Your task to perform on an android device: What is the news today? Image 0: 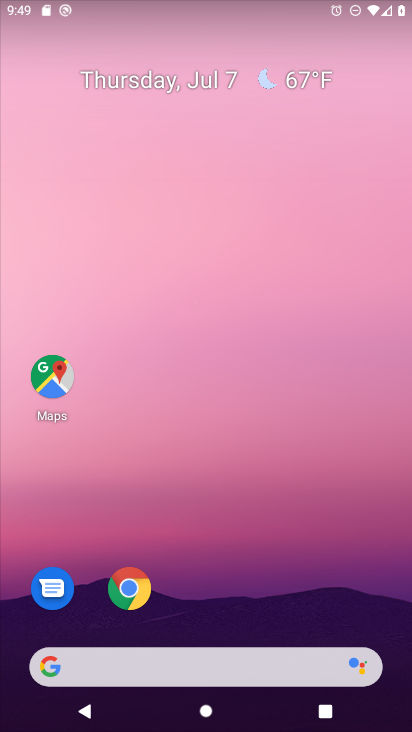
Step 0: drag from (258, 631) to (221, 196)
Your task to perform on an android device: What is the news today? Image 1: 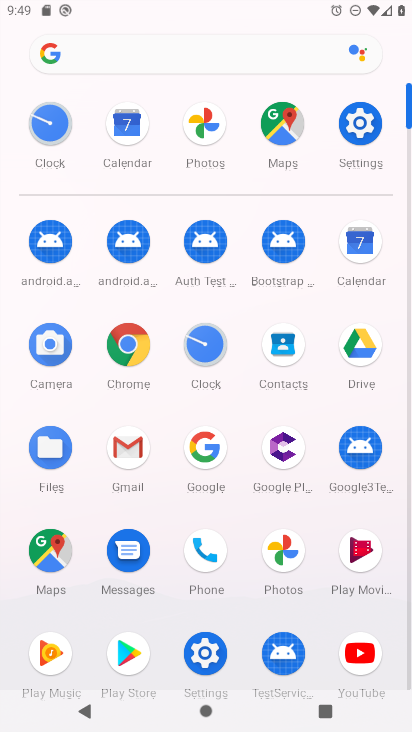
Step 1: click (203, 444)
Your task to perform on an android device: What is the news today? Image 2: 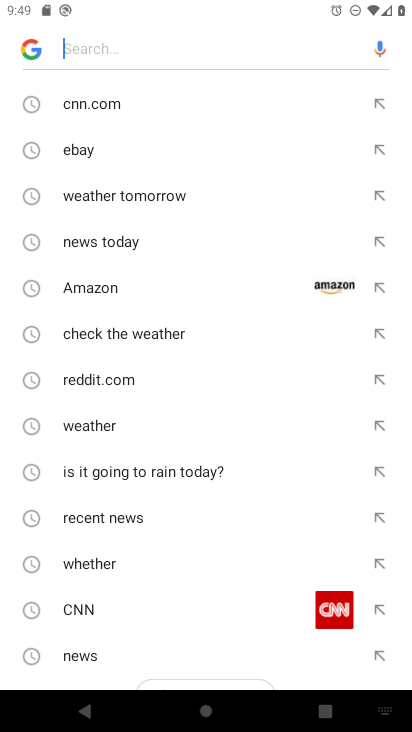
Step 2: click (113, 243)
Your task to perform on an android device: What is the news today? Image 3: 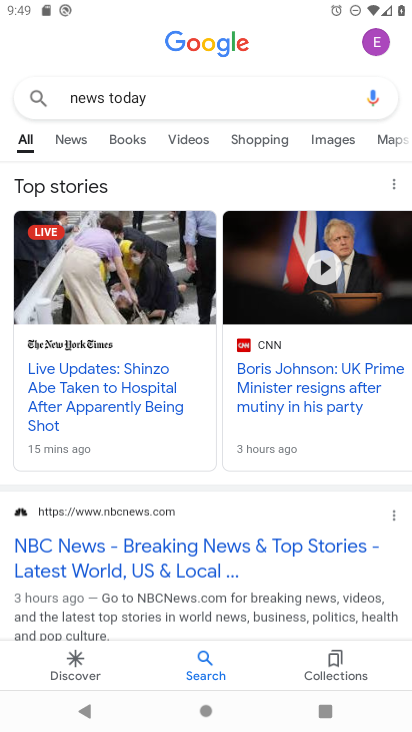
Step 3: click (80, 372)
Your task to perform on an android device: What is the news today? Image 4: 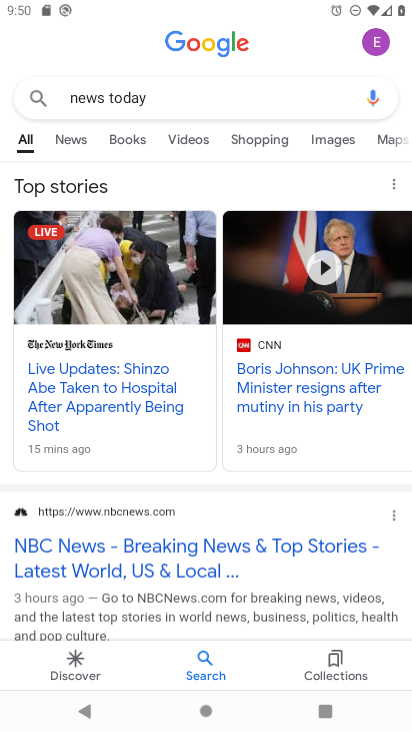
Step 4: click (112, 287)
Your task to perform on an android device: What is the news today? Image 5: 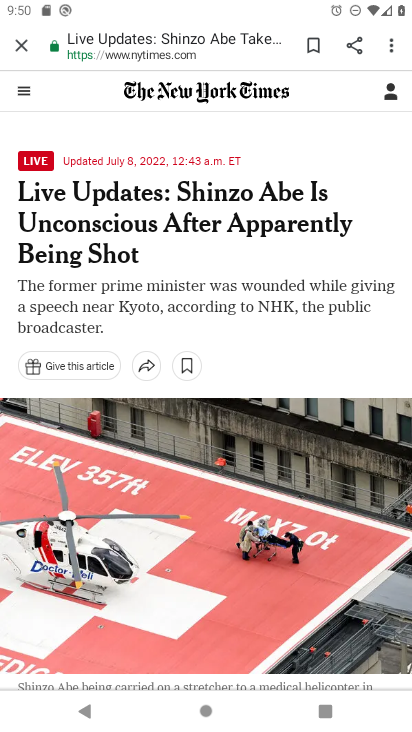
Step 5: task complete